Your task to perform on an android device: Open calendar and show me the fourth week of next month Image 0: 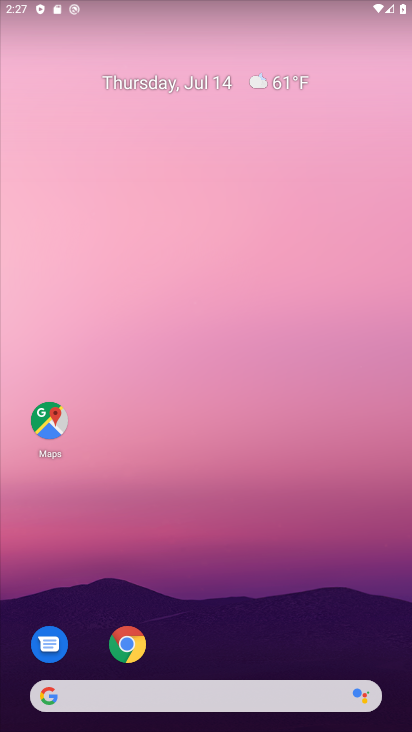
Step 0: drag from (272, 639) to (221, 0)
Your task to perform on an android device: Open calendar and show me the fourth week of next month Image 1: 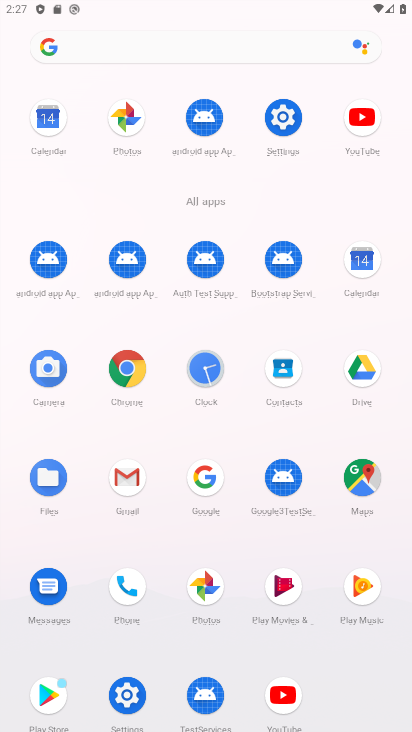
Step 1: click (52, 127)
Your task to perform on an android device: Open calendar and show me the fourth week of next month Image 2: 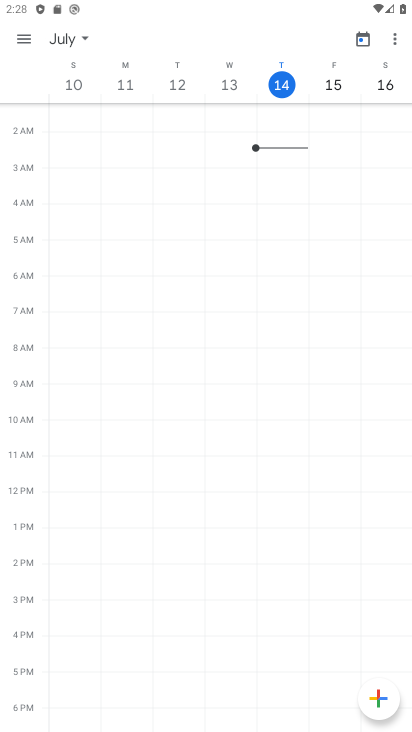
Step 2: click (20, 31)
Your task to perform on an android device: Open calendar and show me the fourth week of next month Image 3: 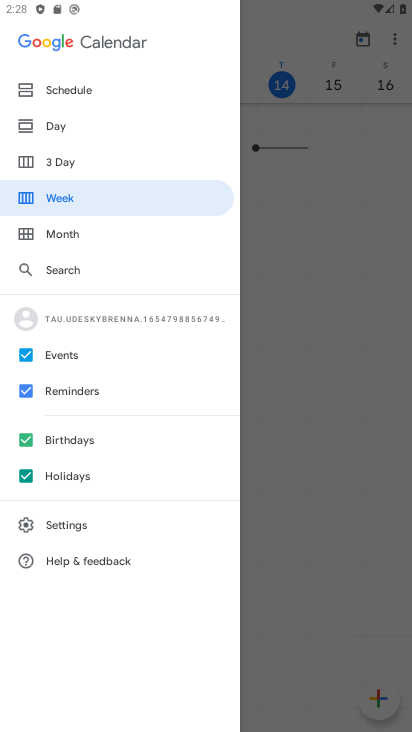
Step 3: click (280, 162)
Your task to perform on an android device: Open calendar and show me the fourth week of next month Image 4: 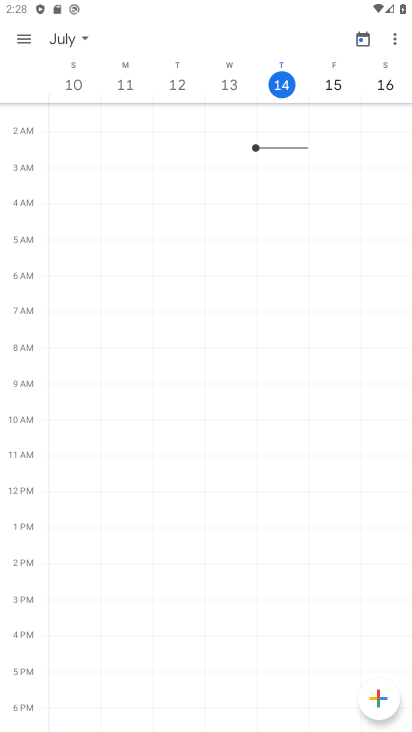
Step 4: click (71, 44)
Your task to perform on an android device: Open calendar and show me the fourth week of next month Image 5: 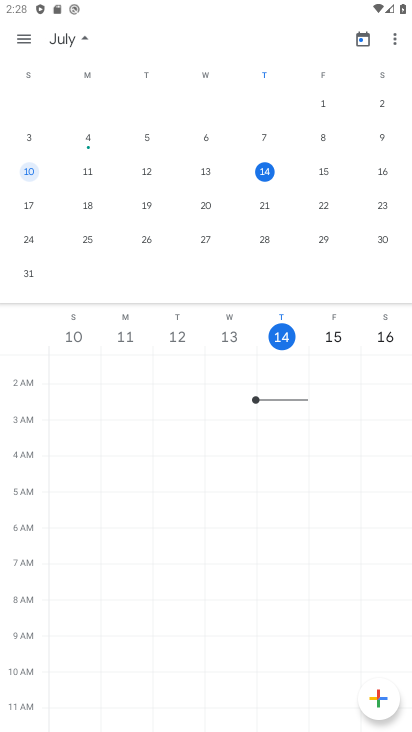
Step 5: drag from (283, 258) to (0, 209)
Your task to perform on an android device: Open calendar and show me the fourth week of next month Image 6: 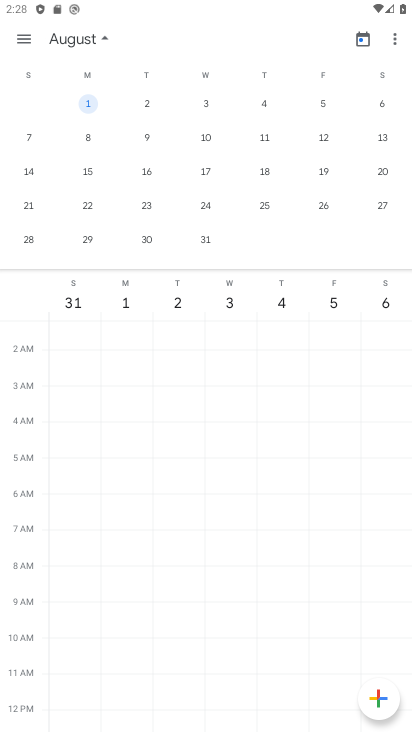
Step 6: click (89, 199)
Your task to perform on an android device: Open calendar and show me the fourth week of next month Image 7: 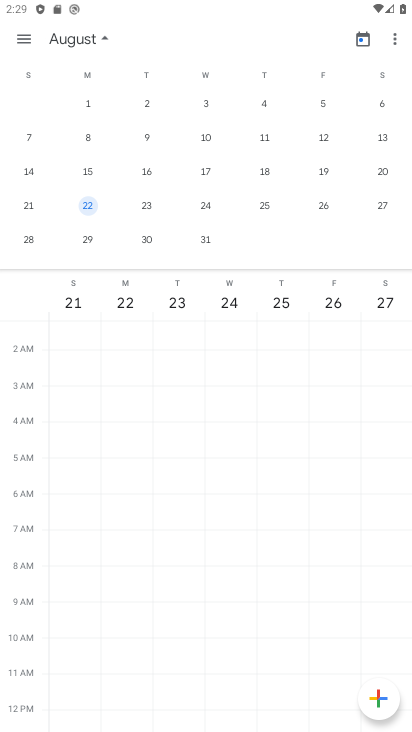
Step 7: task complete